Your task to perform on an android device: Go to privacy settings Image 0: 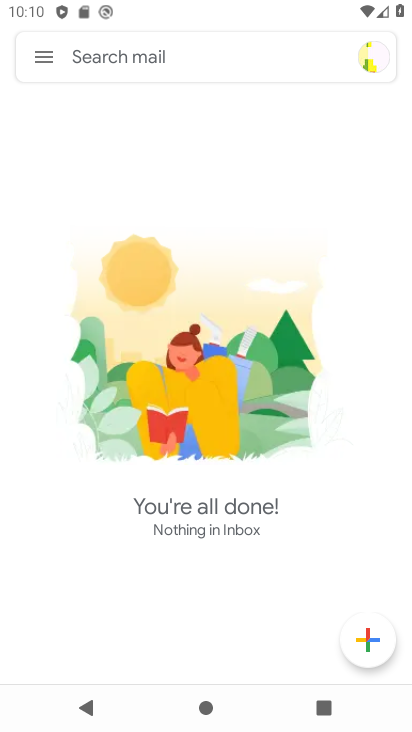
Step 0: press back button
Your task to perform on an android device: Go to privacy settings Image 1: 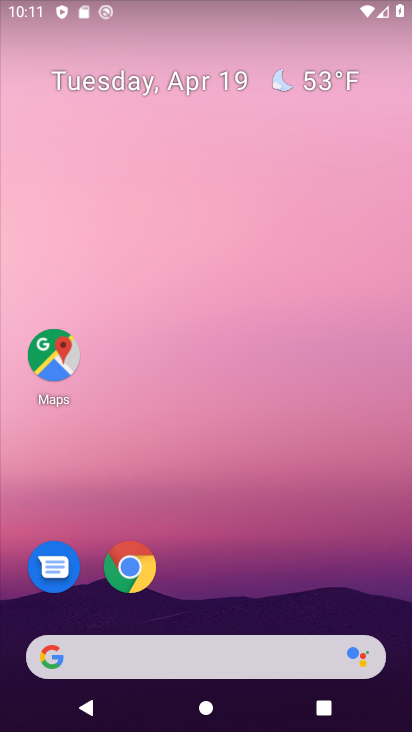
Step 1: click (122, 569)
Your task to perform on an android device: Go to privacy settings Image 2: 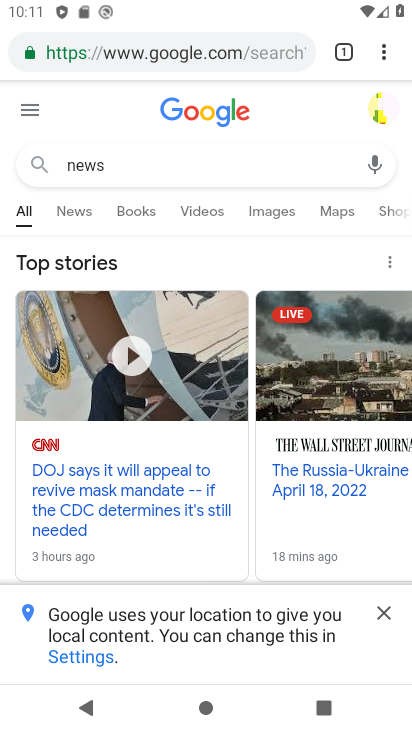
Step 2: click (389, 61)
Your task to perform on an android device: Go to privacy settings Image 3: 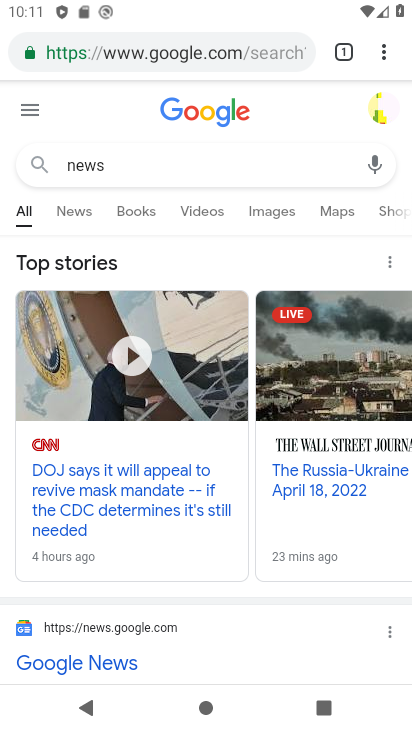
Step 3: click (388, 62)
Your task to perform on an android device: Go to privacy settings Image 4: 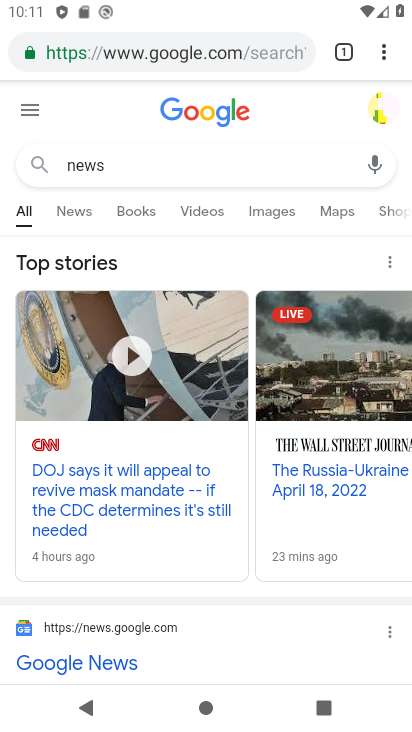
Step 4: click (381, 51)
Your task to perform on an android device: Go to privacy settings Image 5: 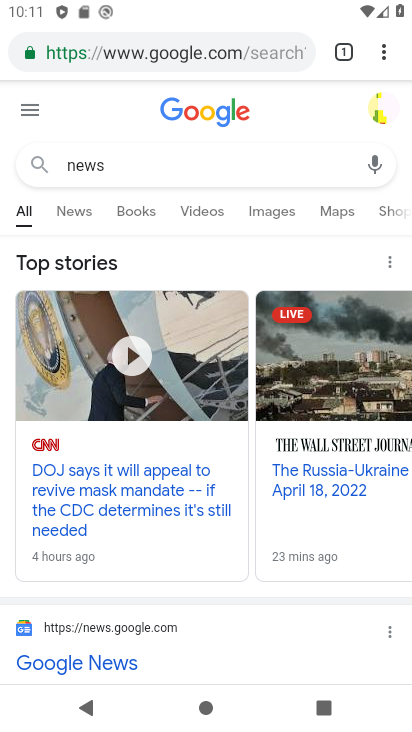
Step 5: drag from (381, 51) to (222, 576)
Your task to perform on an android device: Go to privacy settings Image 6: 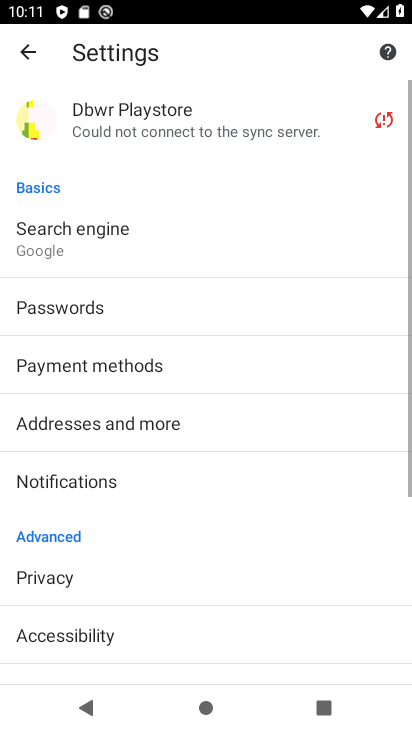
Step 6: click (170, 579)
Your task to perform on an android device: Go to privacy settings Image 7: 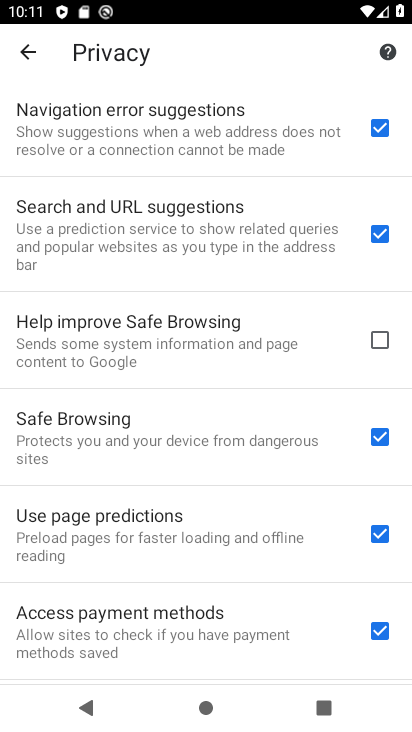
Step 7: task complete